Your task to perform on an android device: What is the news today? Image 0: 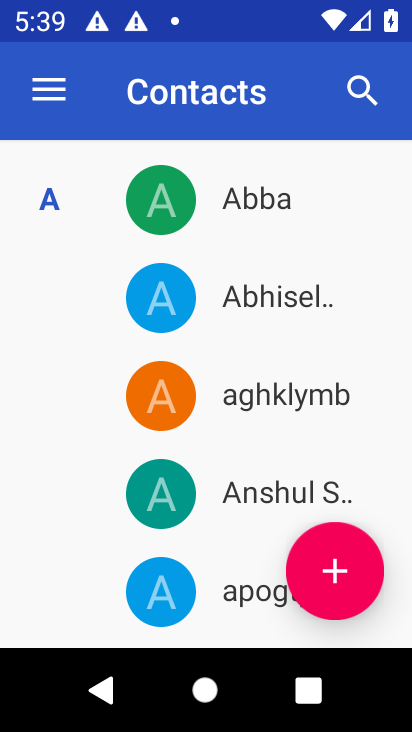
Step 0: press home button
Your task to perform on an android device: What is the news today? Image 1: 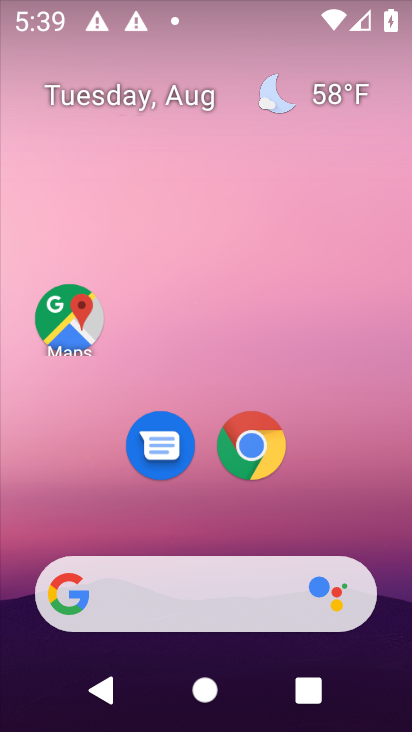
Step 1: click (214, 595)
Your task to perform on an android device: What is the news today? Image 2: 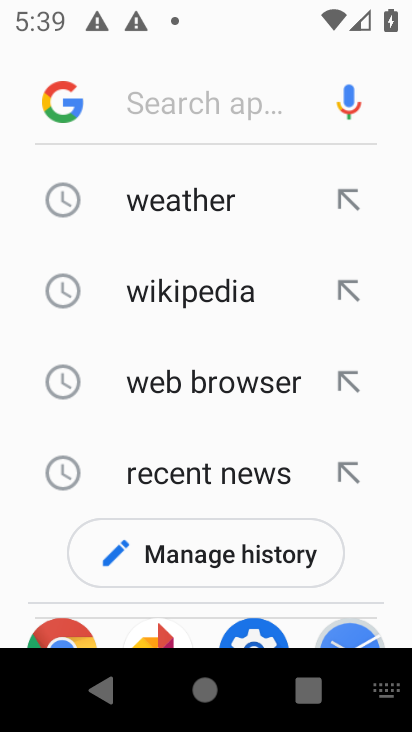
Step 2: type "news today"
Your task to perform on an android device: What is the news today? Image 3: 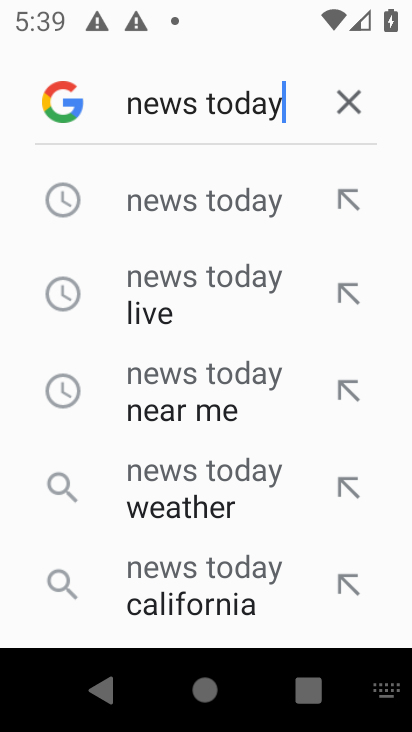
Step 3: click (202, 199)
Your task to perform on an android device: What is the news today? Image 4: 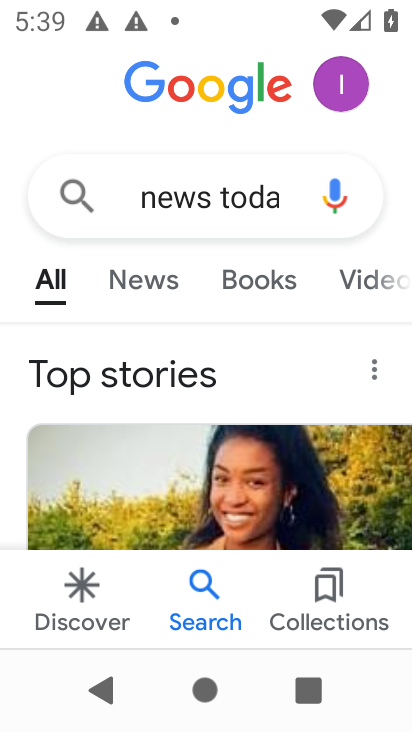
Step 4: task complete